Your task to perform on an android device: delete the emails in spam in the gmail app Image 0: 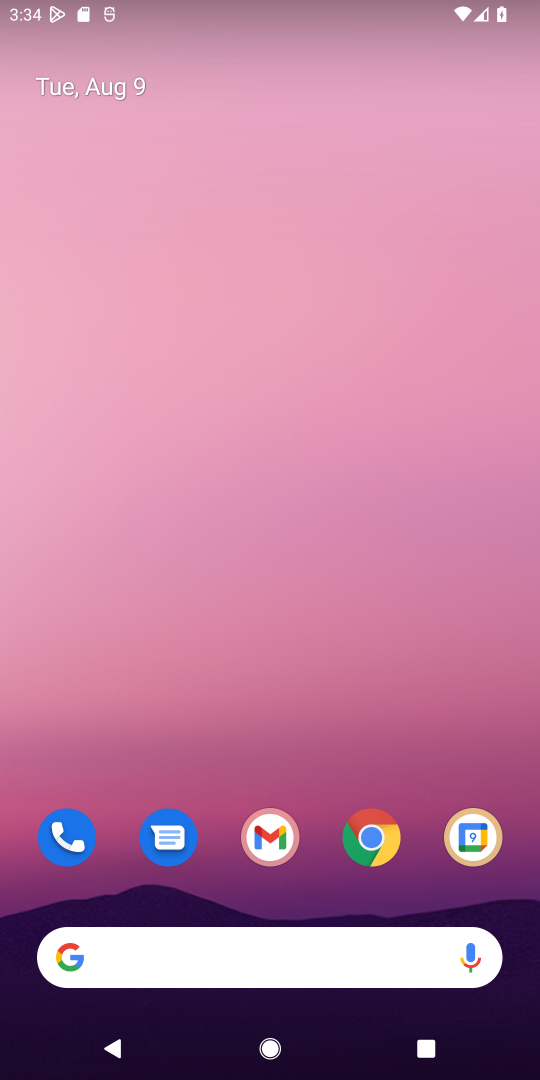
Step 0: drag from (306, 814) to (297, 146)
Your task to perform on an android device: delete the emails in spam in the gmail app Image 1: 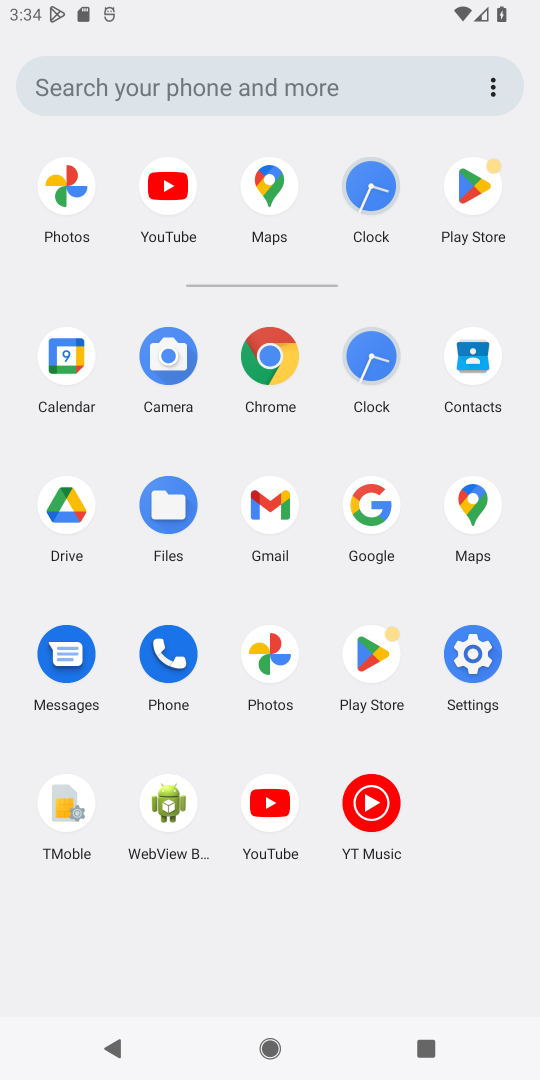
Step 1: click (281, 489)
Your task to perform on an android device: delete the emails in spam in the gmail app Image 2: 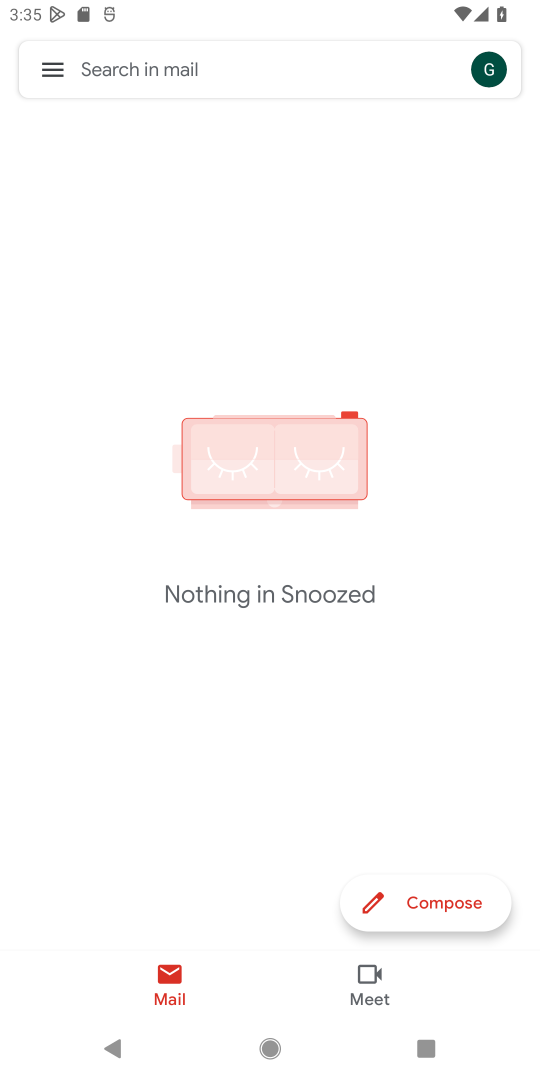
Step 2: click (38, 67)
Your task to perform on an android device: delete the emails in spam in the gmail app Image 3: 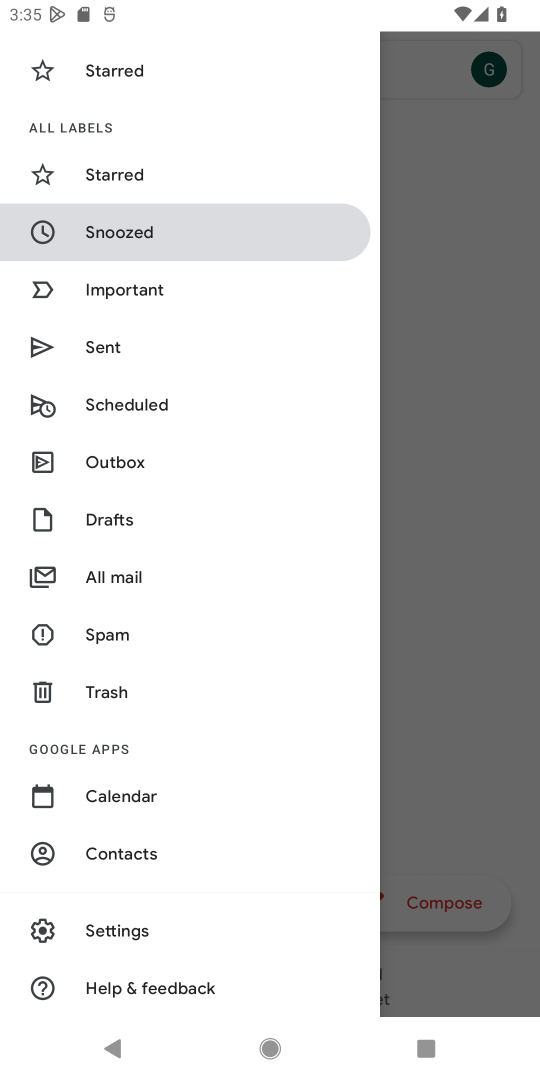
Step 3: click (80, 633)
Your task to perform on an android device: delete the emails in spam in the gmail app Image 4: 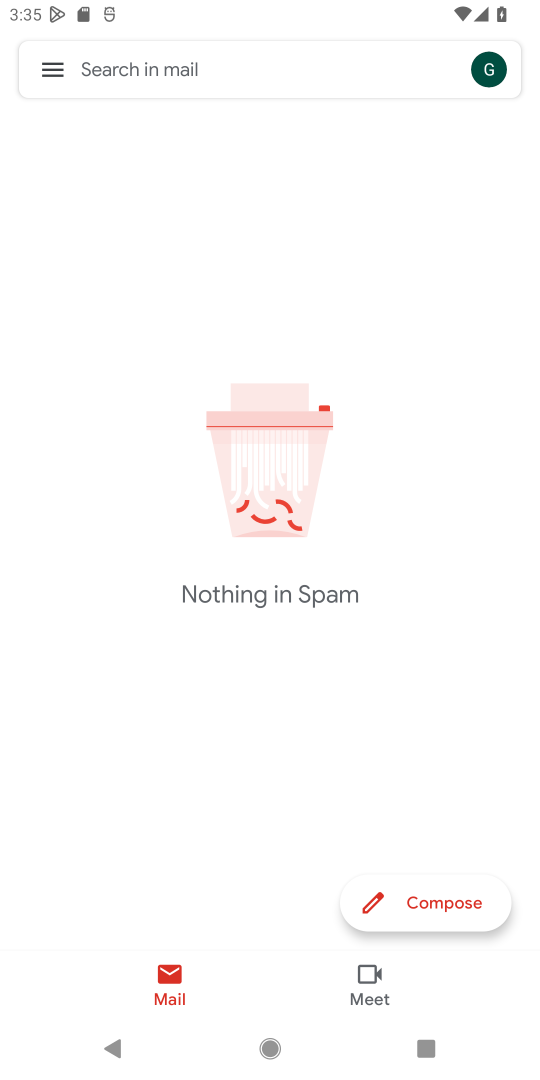
Step 4: task complete